Your task to perform on an android device: clear history in the chrome app Image 0: 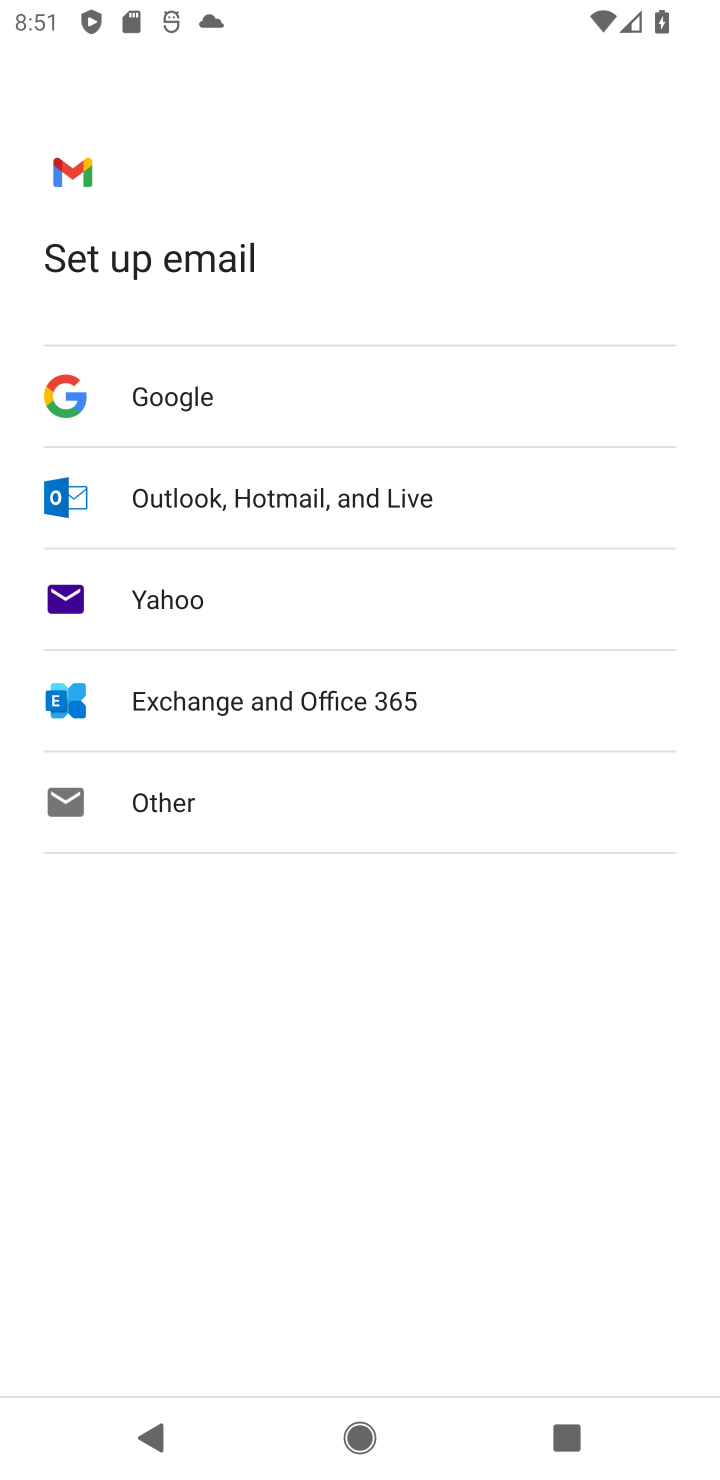
Step 0: press home button
Your task to perform on an android device: clear history in the chrome app Image 1: 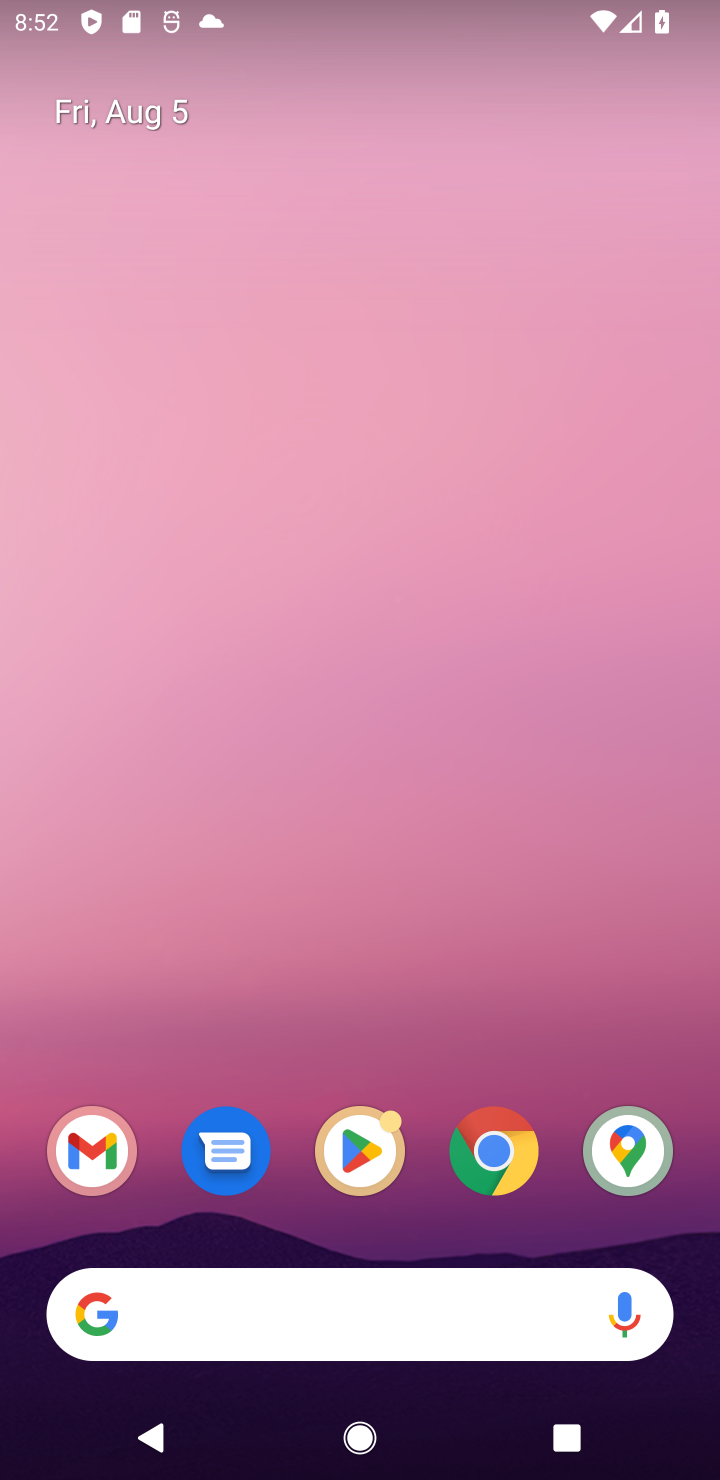
Step 1: click (476, 1172)
Your task to perform on an android device: clear history in the chrome app Image 2: 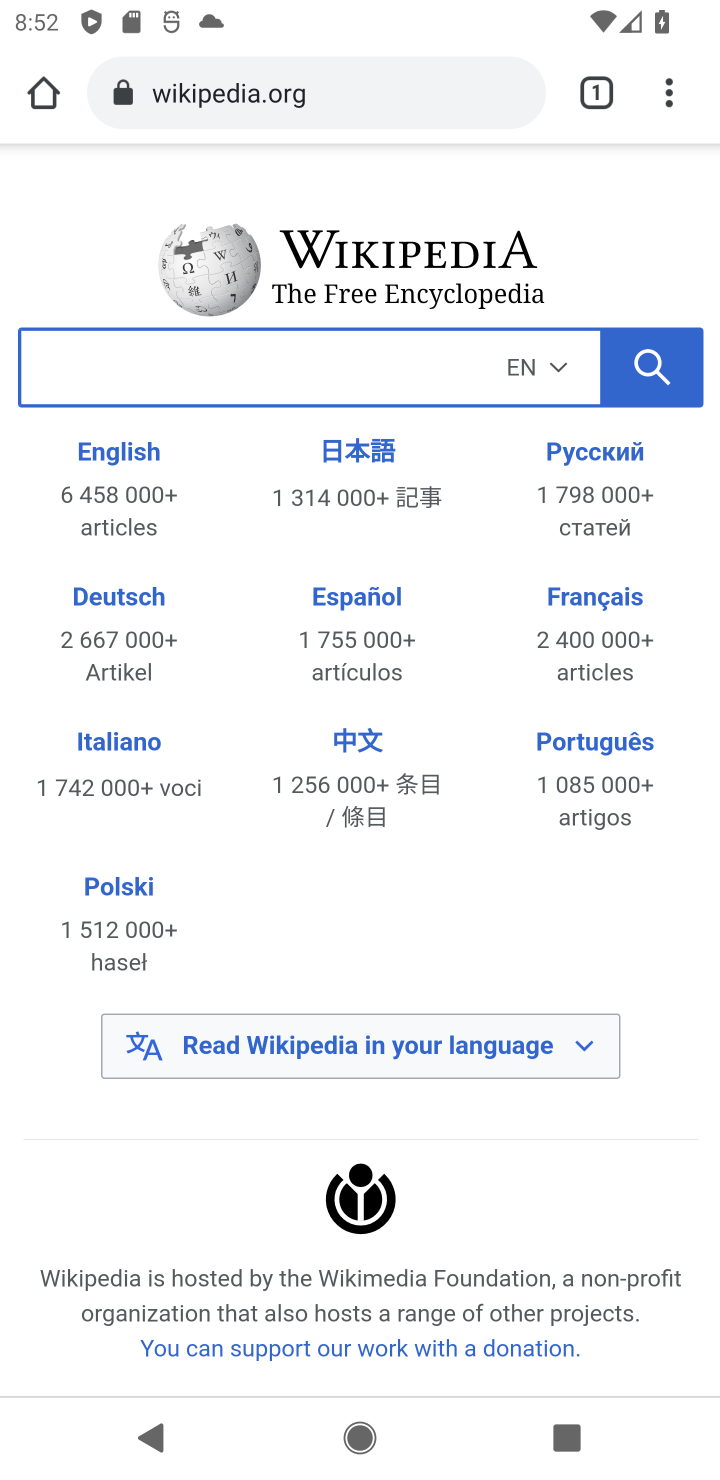
Step 2: click (662, 104)
Your task to perform on an android device: clear history in the chrome app Image 3: 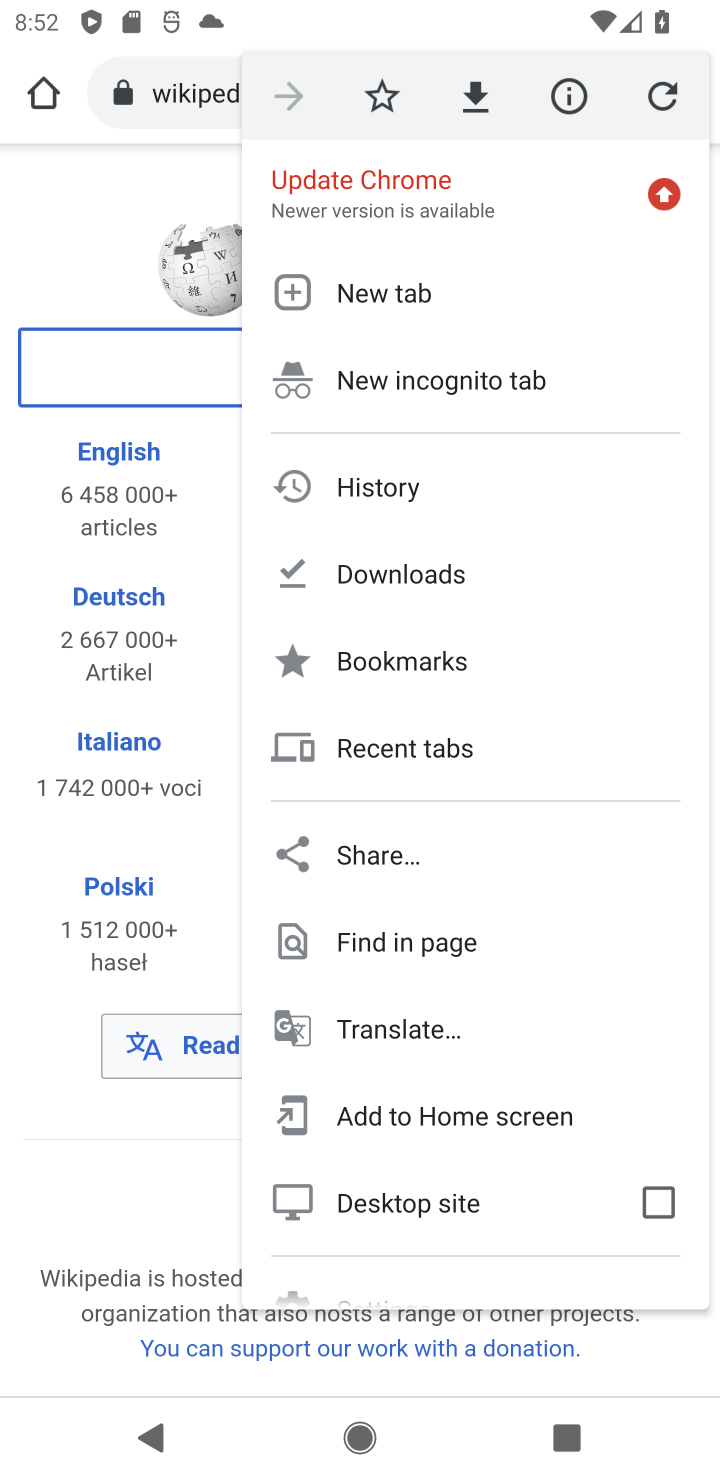
Step 3: click (349, 480)
Your task to perform on an android device: clear history in the chrome app Image 4: 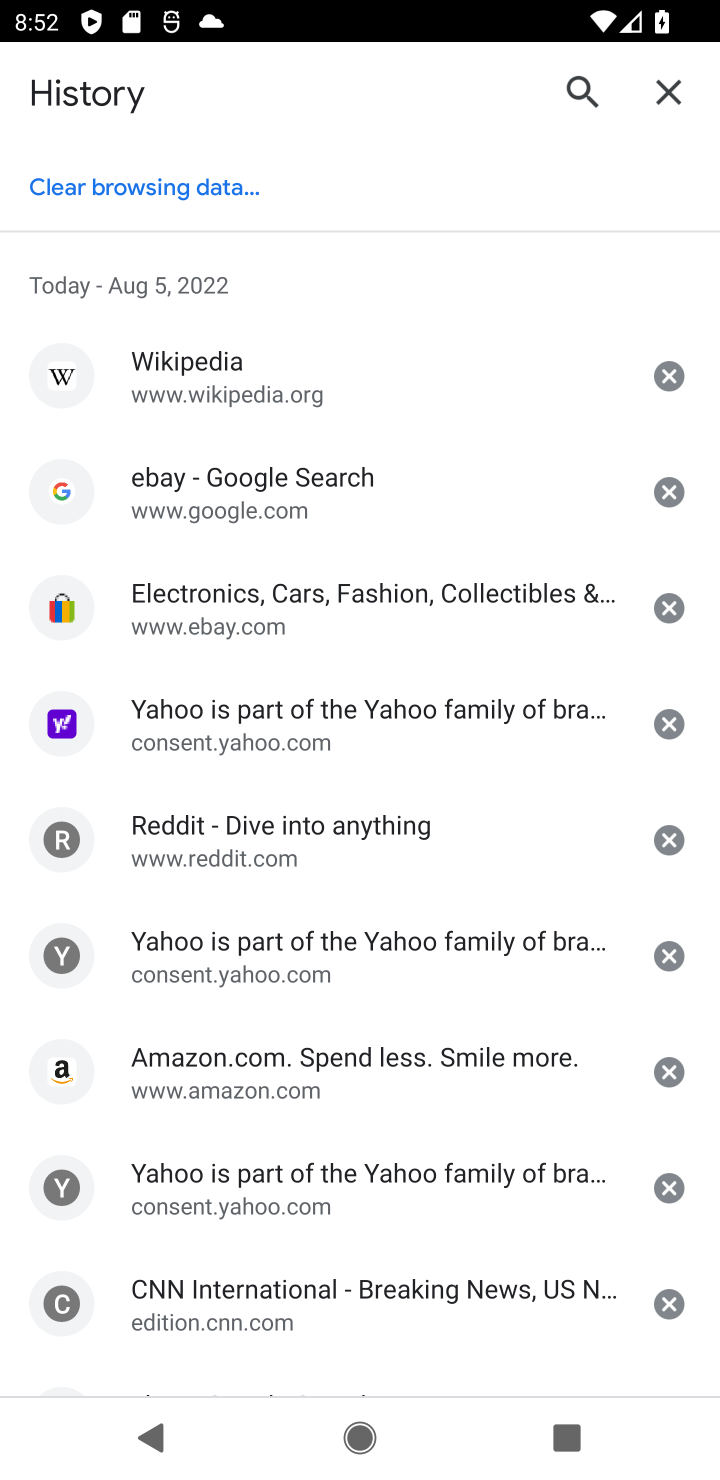
Step 4: click (161, 186)
Your task to perform on an android device: clear history in the chrome app Image 5: 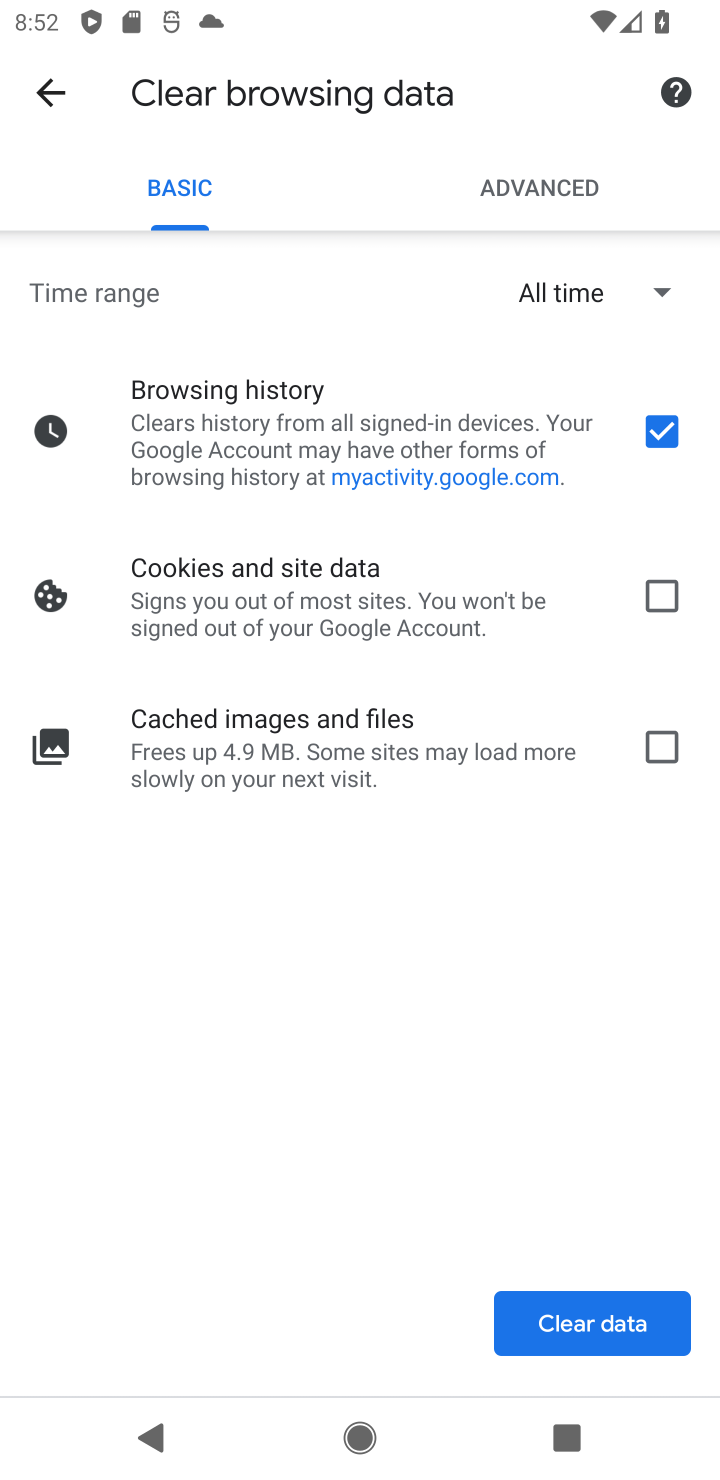
Step 5: click (659, 599)
Your task to perform on an android device: clear history in the chrome app Image 6: 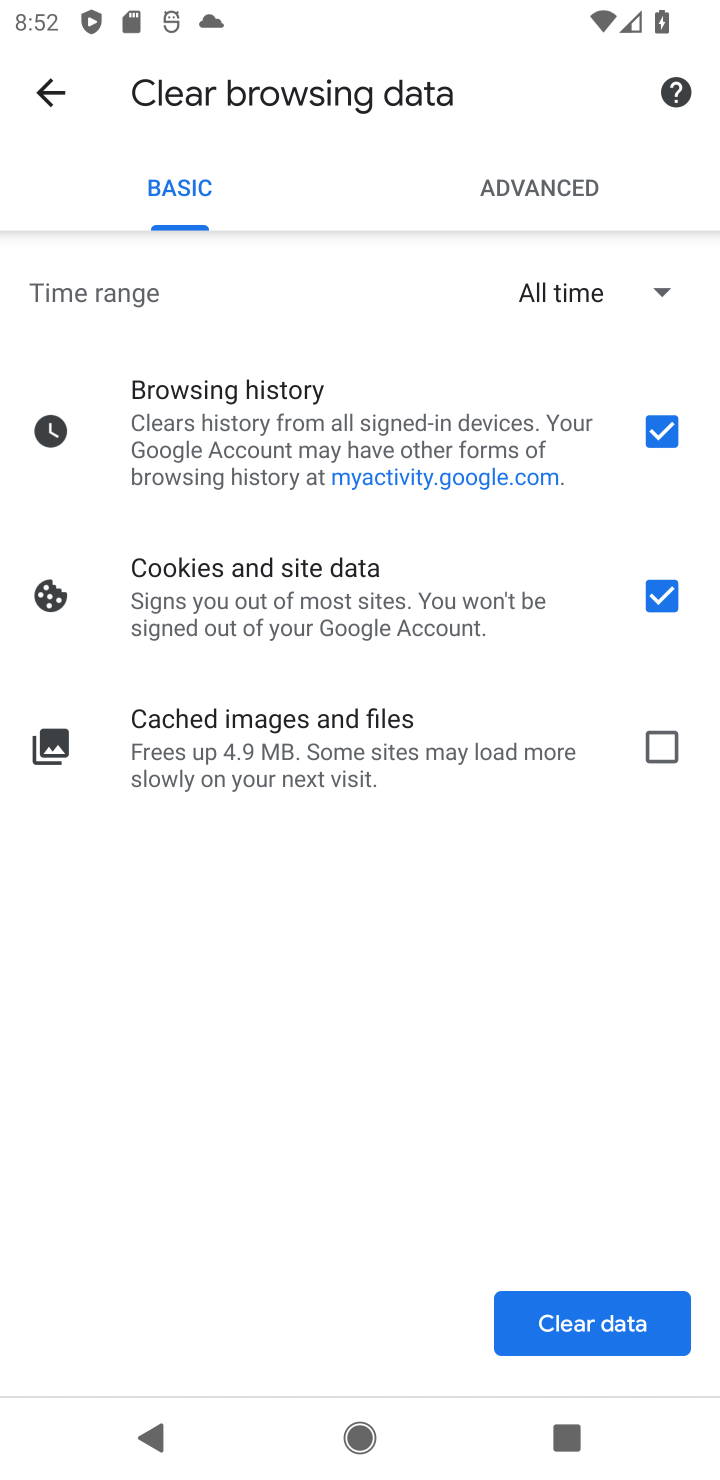
Step 6: click (666, 768)
Your task to perform on an android device: clear history in the chrome app Image 7: 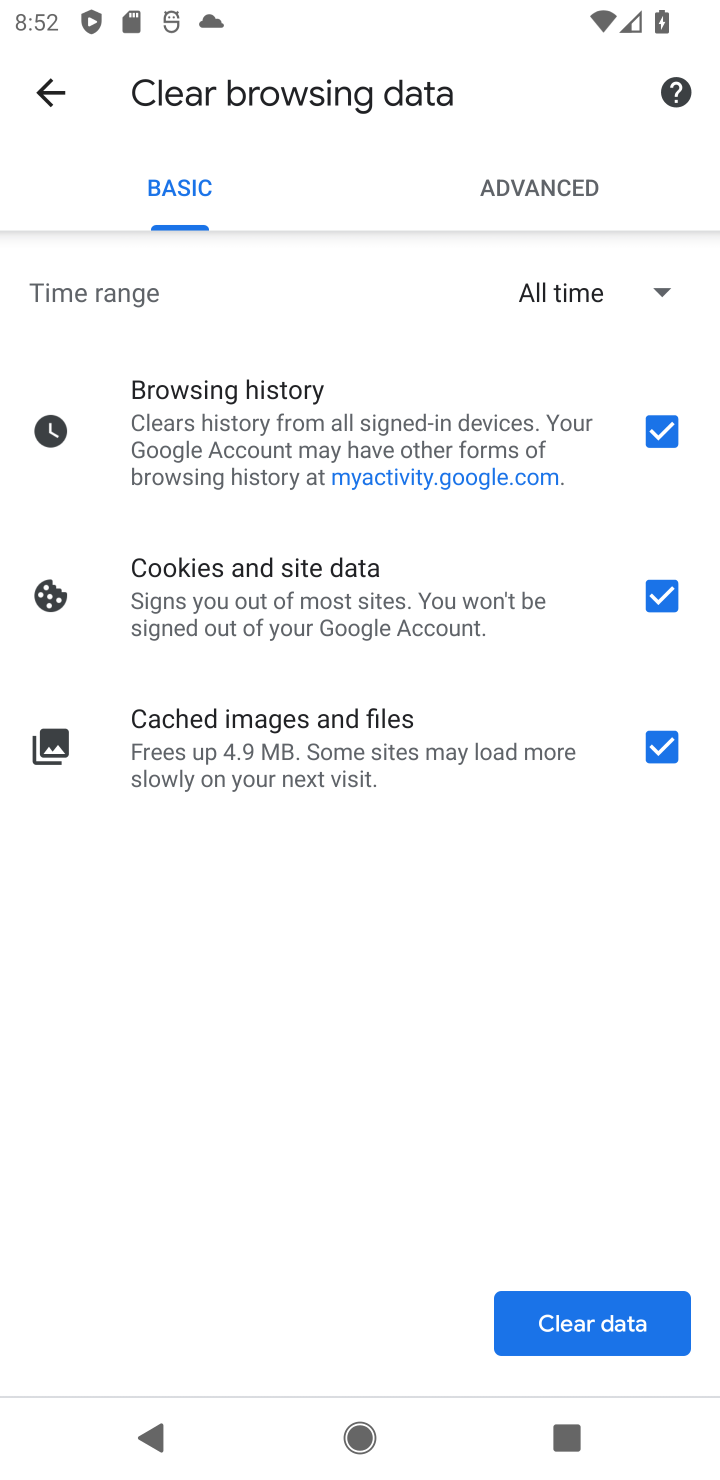
Step 7: click (549, 1314)
Your task to perform on an android device: clear history in the chrome app Image 8: 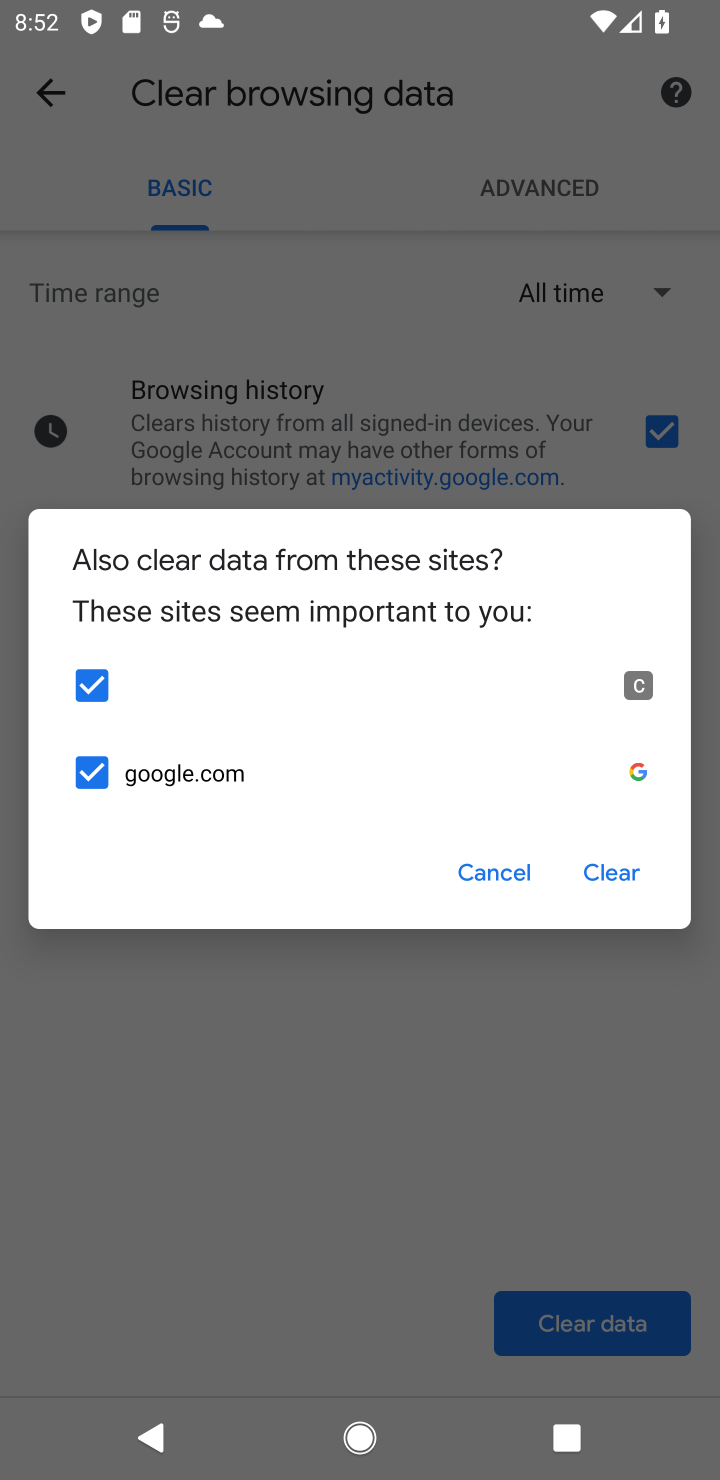
Step 8: click (610, 859)
Your task to perform on an android device: clear history in the chrome app Image 9: 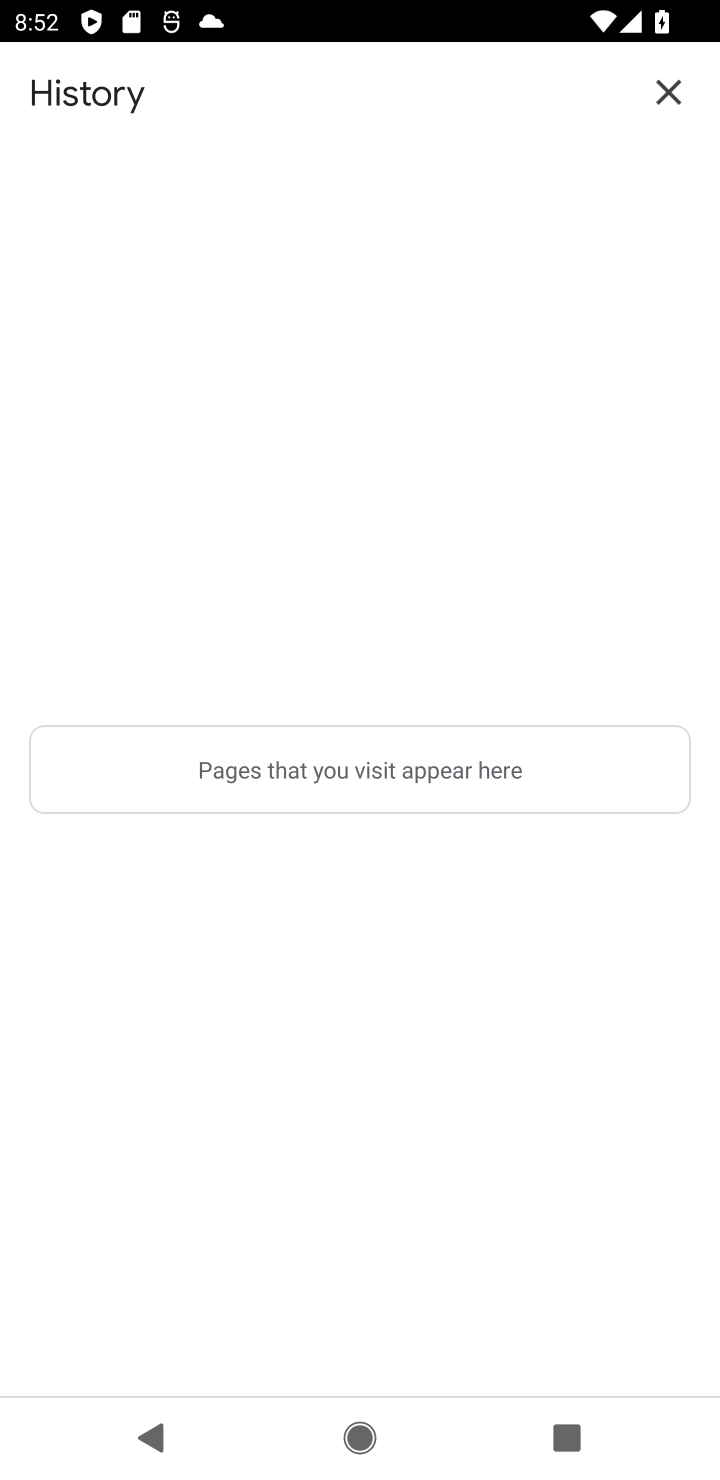
Step 9: task complete